Your task to perform on an android device: change alarm snooze length Image 0: 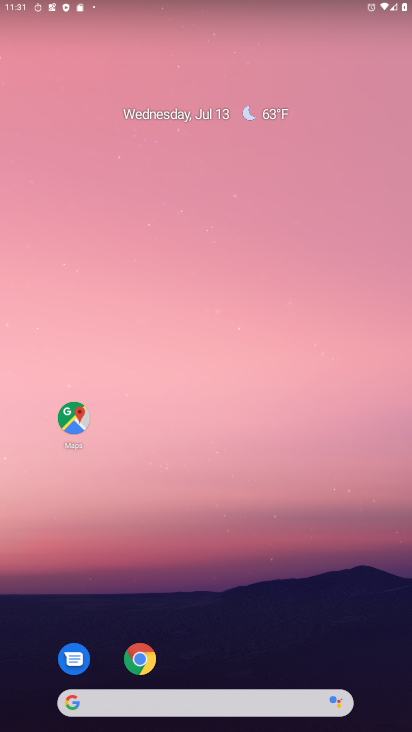
Step 0: drag from (304, 555) to (253, 175)
Your task to perform on an android device: change alarm snooze length Image 1: 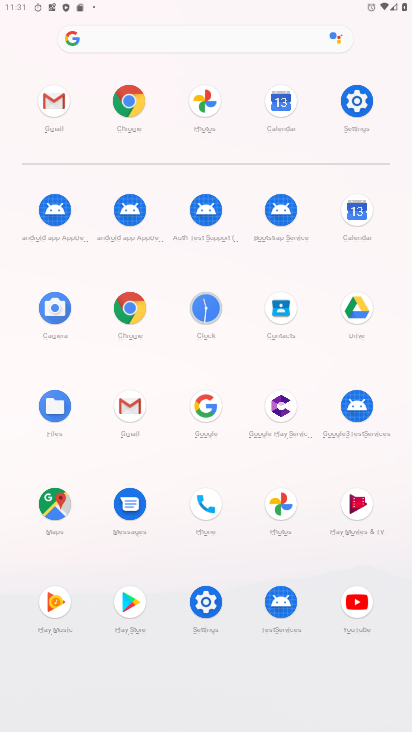
Step 1: click (208, 307)
Your task to perform on an android device: change alarm snooze length Image 2: 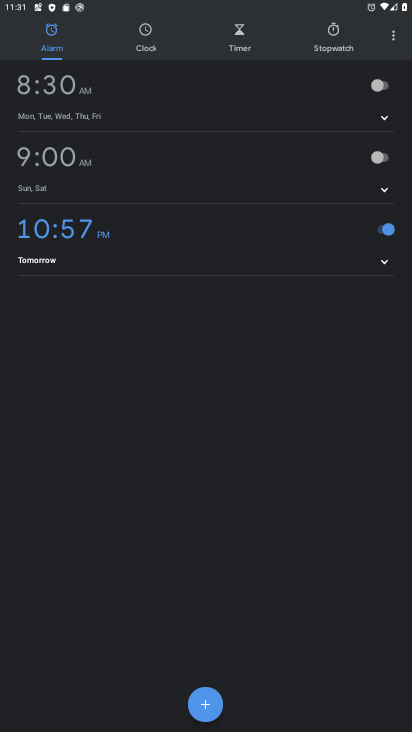
Step 2: click (391, 32)
Your task to perform on an android device: change alarm snooze length Image 3: 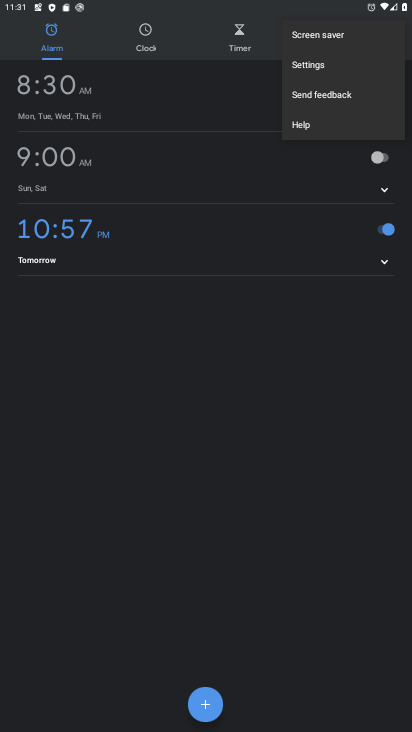
Step 3: click (316, 70)
Your task to perform on an android device: change alarm snooze length Image 4: 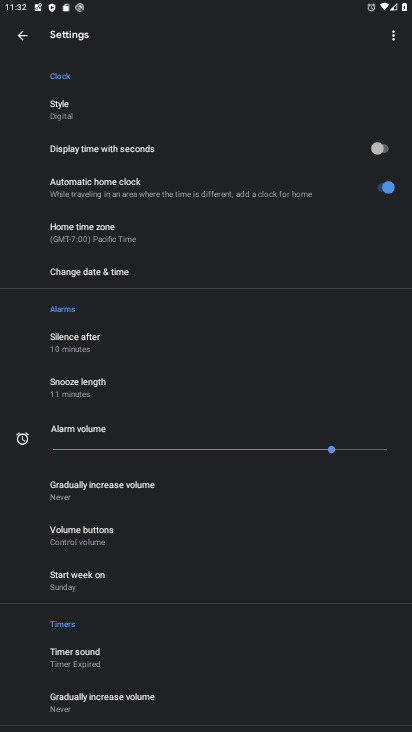
Step 4: click (97, 390)
Your task to perform on an android device: change alarm snooze length Image 5: 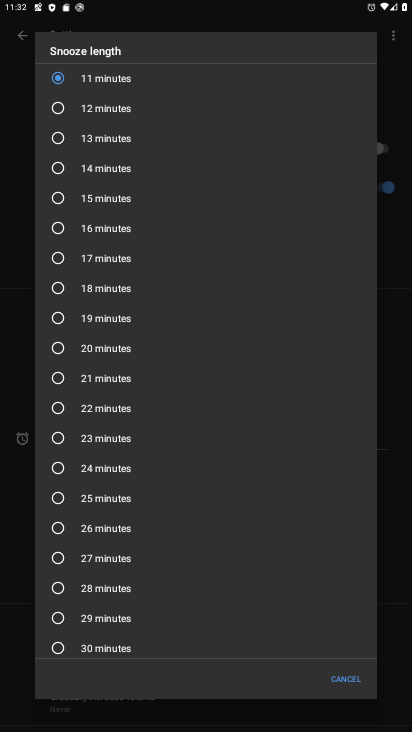
Step 5: click (104, 113)
Your task to perform on an android device: change alarm snooze length Image 6: 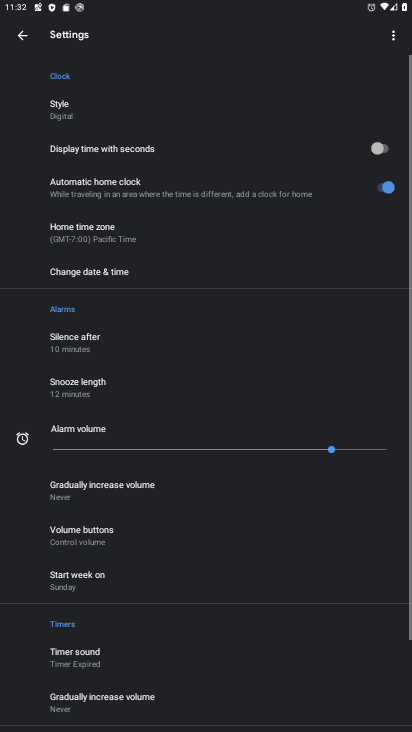
Step 6: task complete